Your task to perform on an android device: Go to Yahoo.com Image 0: 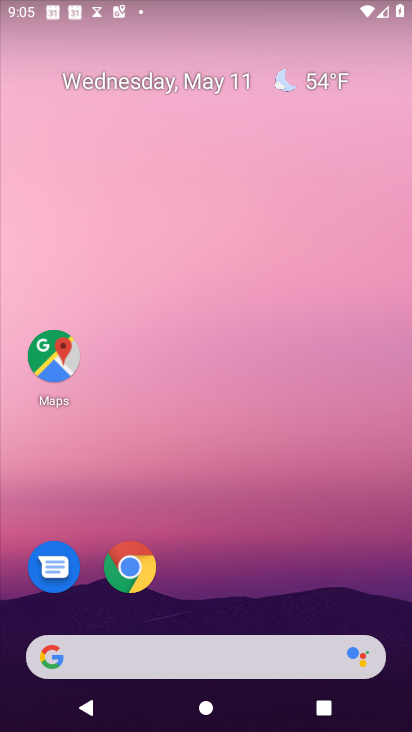
Step 0: click (120, 571)
Your task to perform on an android device: Go to Yahoo.com Image 1: 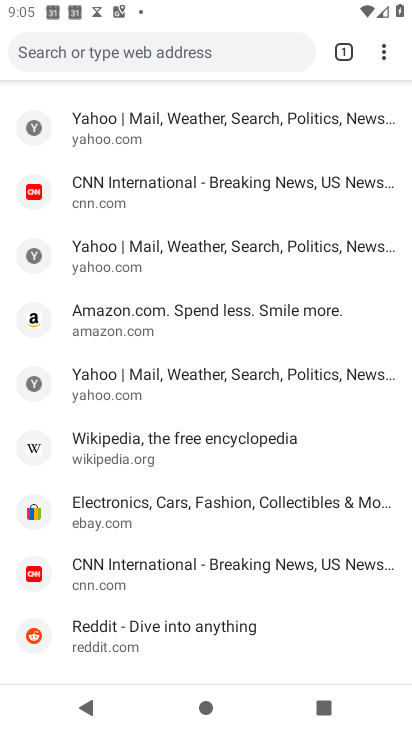
Step 1: drag from (310, 144) to (293, 546)
Your task to perform on an android device: Go to Yahoo.com Image 2: 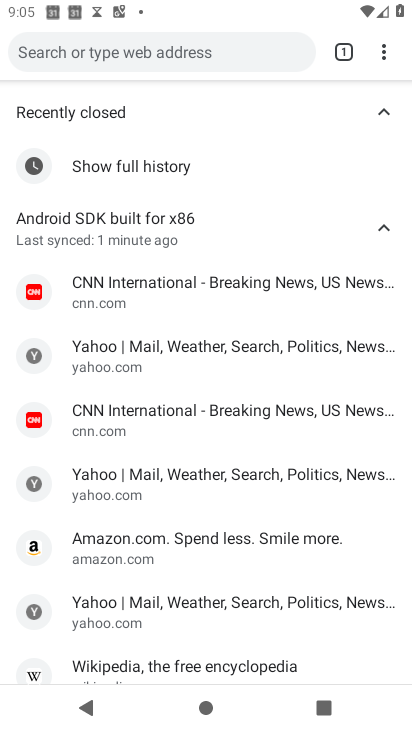
Step 2: click (382, 49)
Your task to perform on an android device: Go to Yahoo.com Image 3: 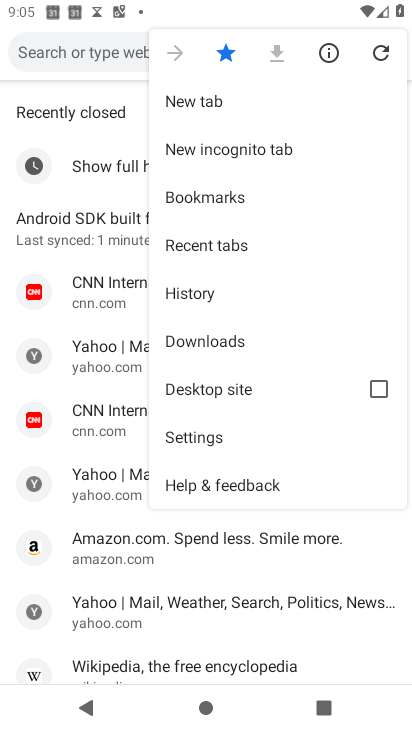
Step 3: click (228, 103)
Your task to perform on an android device: Go to Yahoo.com Image 4: 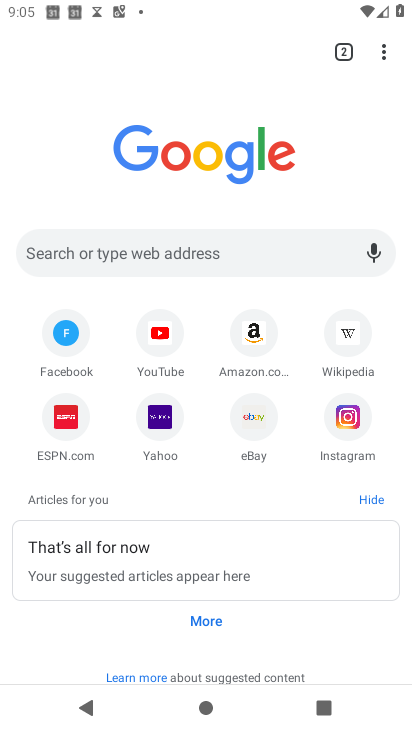
Step 4: click (158, 442)
Your task to perform on an android device: Go to Yahoo.com Image 5: 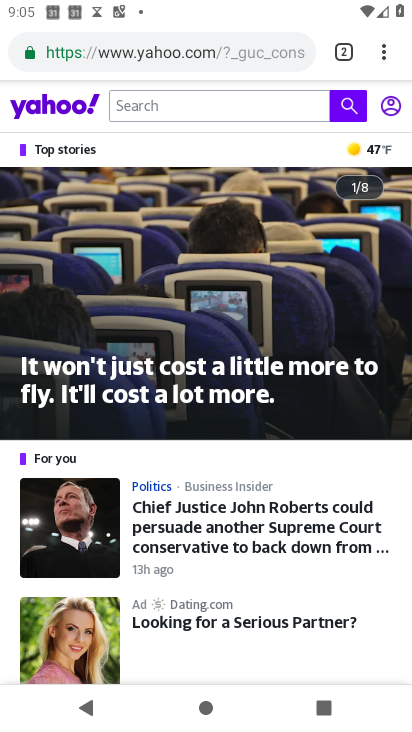
Step 5: task complete